Your task to perform on an android device: Go to eBay Image 0: 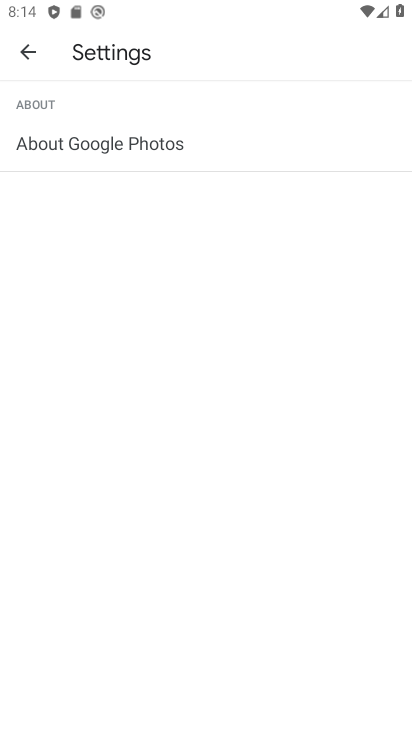
Step 0: press home button
Your task to perform on an android device: Go to eBay Image 1: 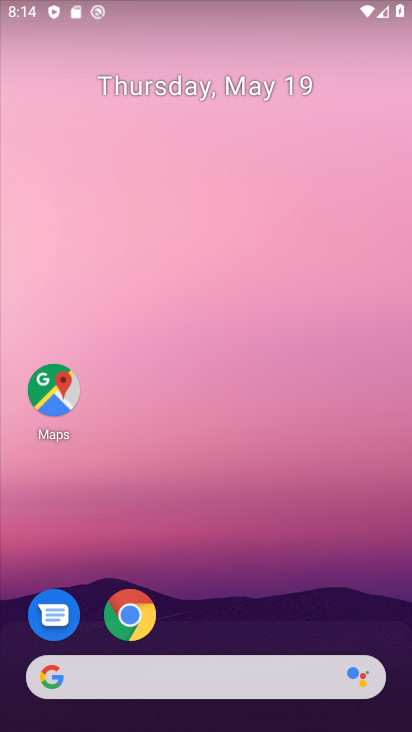
Step 1: click (120, 646)
Your task to perform on an android device: Go to eBay Image 2: 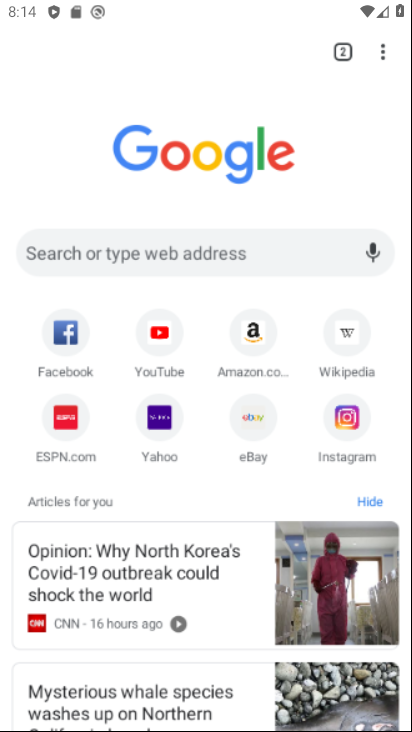
Step 2: click (123, 619)
Your task to perform on an android device: Go to eBay Image 3: 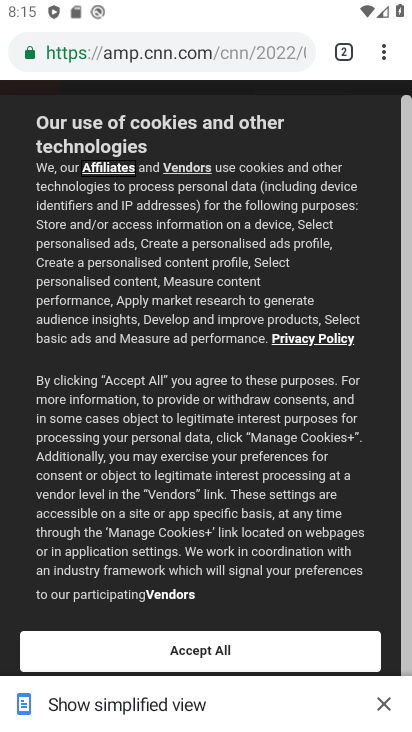
Step 3: click (167, 49)
Your task to perform on an android device: Go to eBay Image 4: 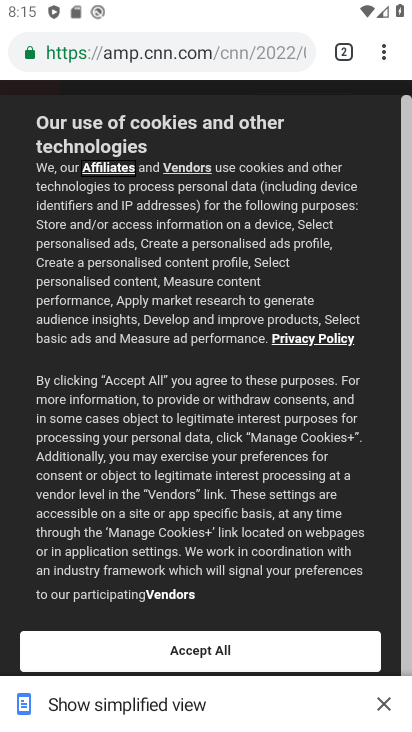
Step 4: click (167, 49)
Your task to perform on an android device: Go to eBay Image 5: 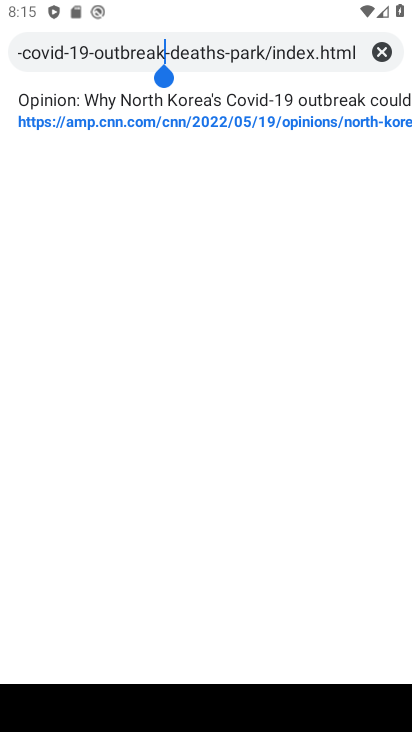
Step 5: click (383, 42)
Your task to perform on an android device: Go to eBay Image 6: 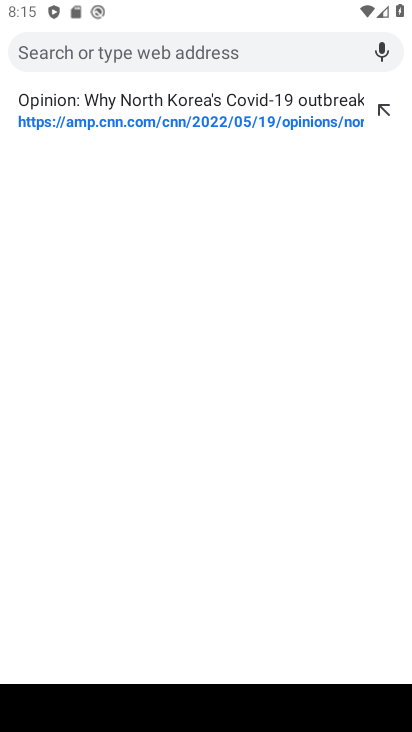
Step 6: type "ebay"
Your task to perform on an android device: Go to eBay Image 7: 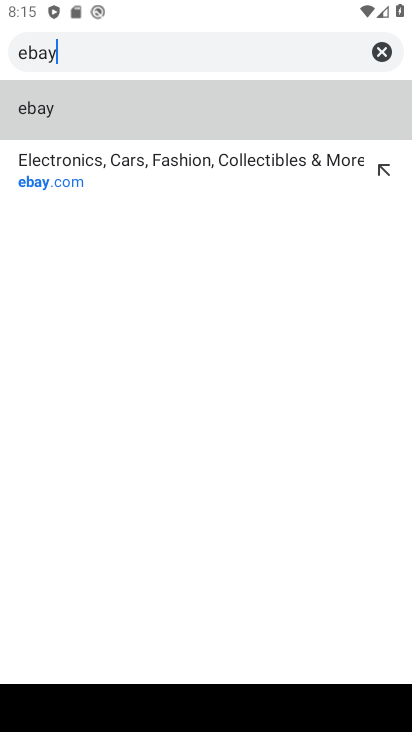
Step 7: click (131, 115)
Your task to perform on an android device: Go to eBay Image 8: 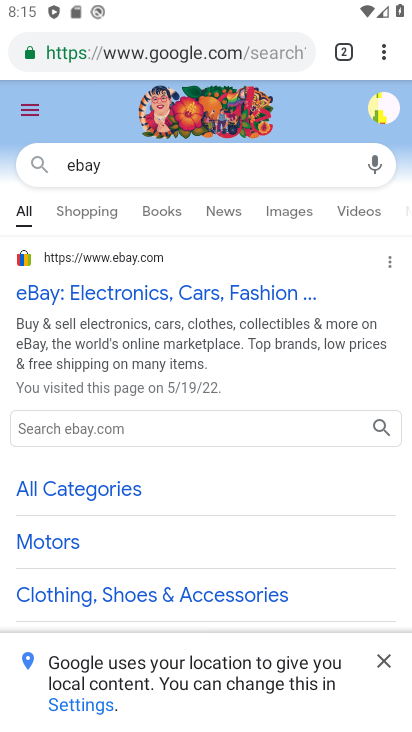
Step 8: task complete